Your task to perform on an android device: Go to settings Image 0: 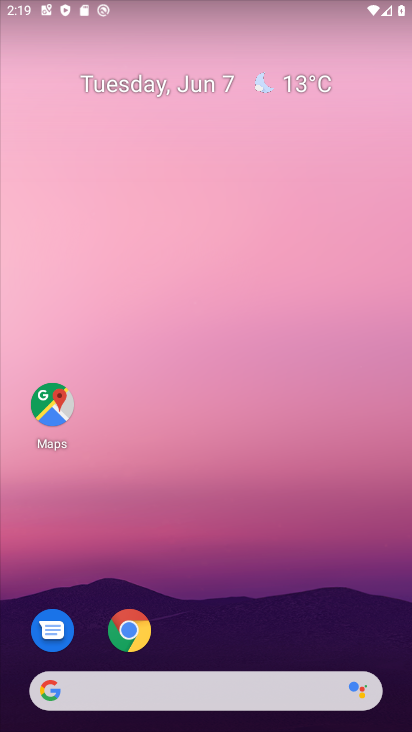
Step 0: drag from (318, 646) to (262, 70)
Your task to perform on an android device: Go to settings Image 1: 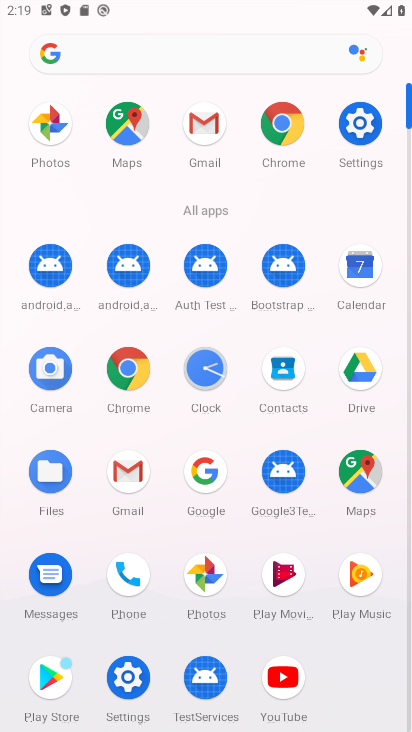
Step 1: click (365, 117)
Your task to perform on an android device: Go to settings Image 2: 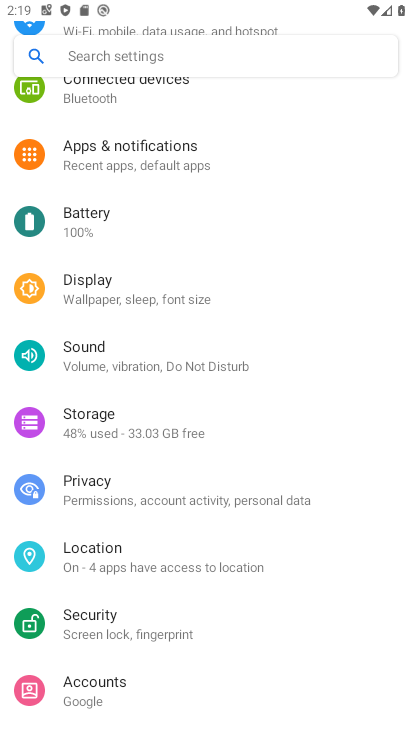
Step 2: task complete